Your task to perform on an android device: Open the calendar app, open the side menu, and click the "Day" option Image 0: 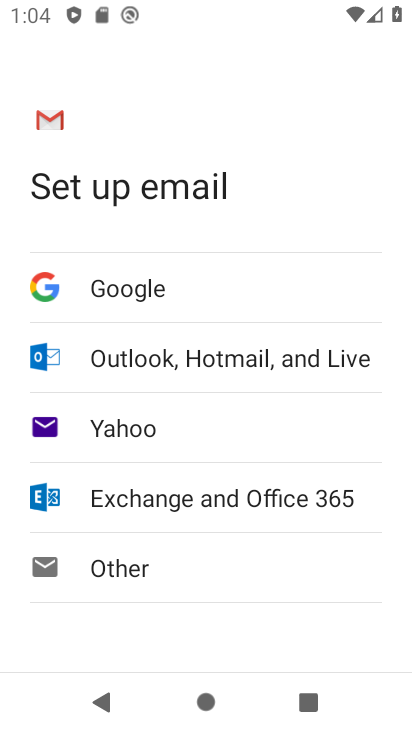
Step 0: press home button
Your task to perform on an android device: Open the calendar app, open the side menu, and click the "Day" option Image 1: 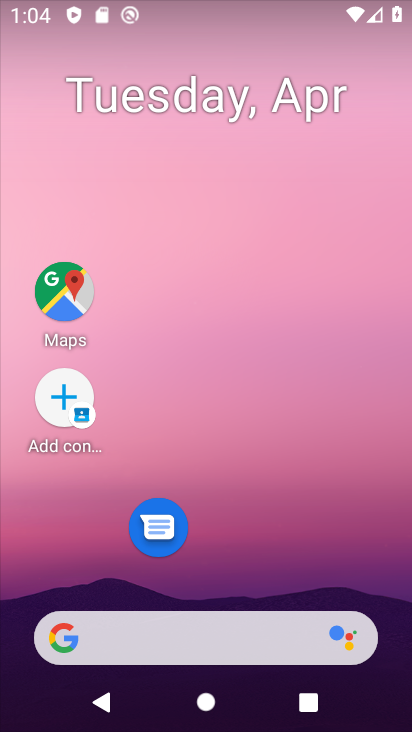
Step 1: drag from (257, 591) to (326, 53)
Your task to perform on an android device: Open the calendar app, open the side menu, and click the "Day" option Image 2: 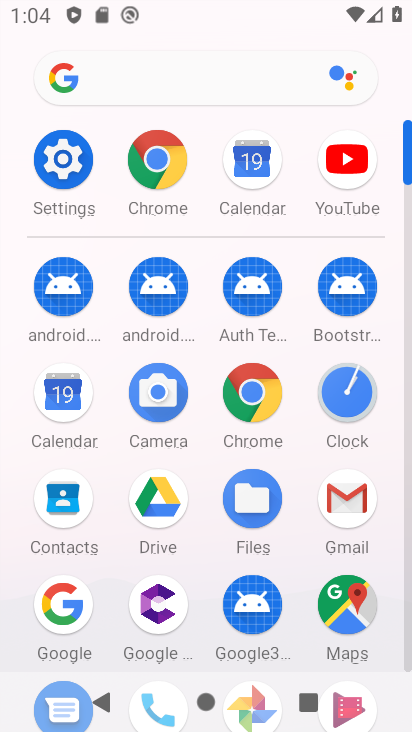
Step 2: click (60, 402)
Your task to perform on an android device: Open the calendar app, open the side menu, and click the "Day" option Image 3: 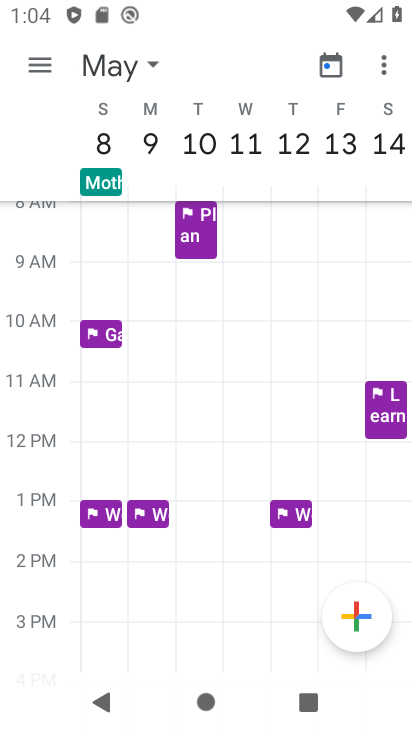
Step 3: click (328, 64)
Your task to perform on an android device: Open the calendar app, open the side menu, and click the "Day" option Image 4: 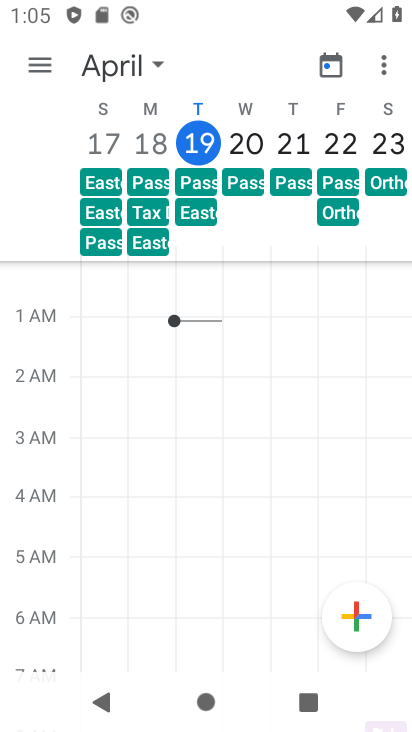
Step 4: click (39, 76)
Your task to perform on an android device: Open the calendar app, open the side menu, and click the "Day" option Image 5: 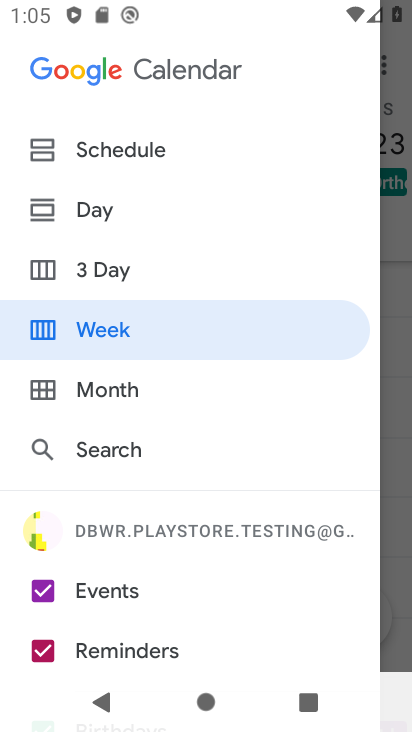
Step 5: click (97, 213)
Your task to perform on an android device: Open the calendar app, open the side menu, and click the "Day" option Image 6: 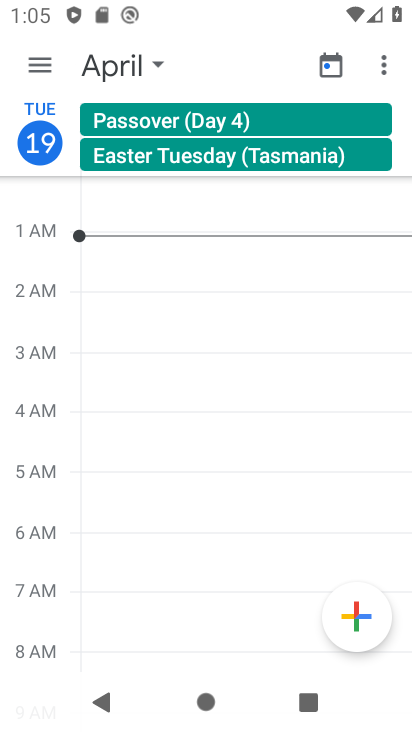
Step 6: task complete